Your task to perform on an android device: change the clock display to analog Image 0: 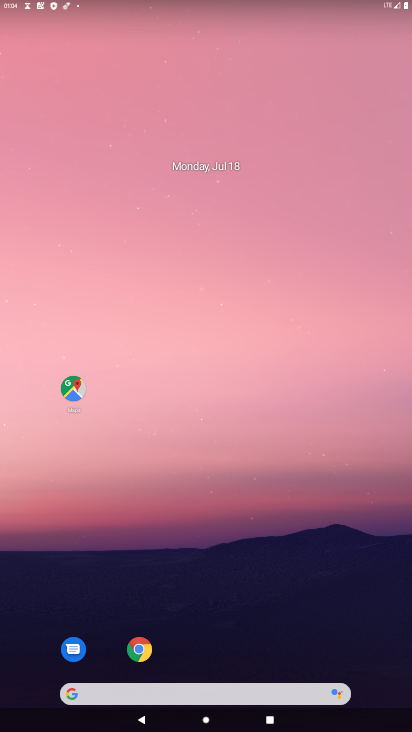
Step 0: drag from (176, 601) to (173, 24)
Your task to perform on an android device: change the clock display to analog Image 1: 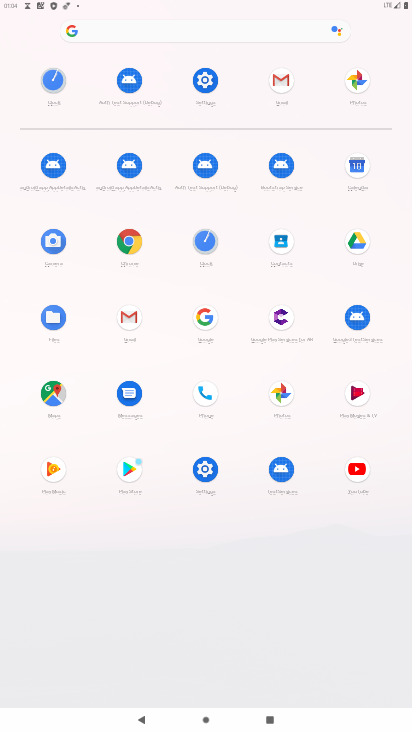
Step 1: click (203, 247)
Your task to perform on an android device: change the clock display to analog Image 2: 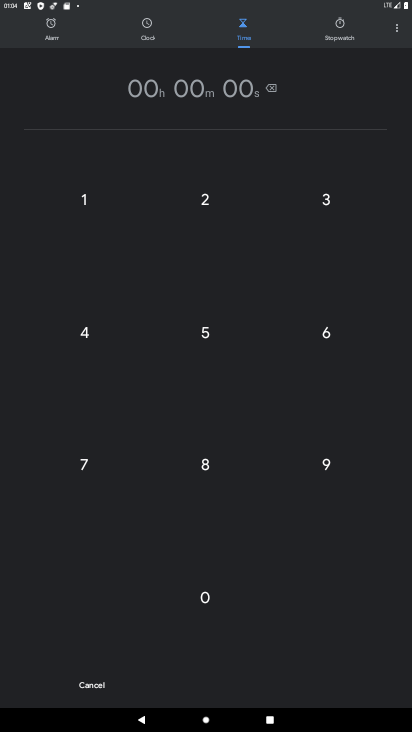
Step 2: click (398, 26)
Your task to perform on an android device: change the clock display to analog Image 3: 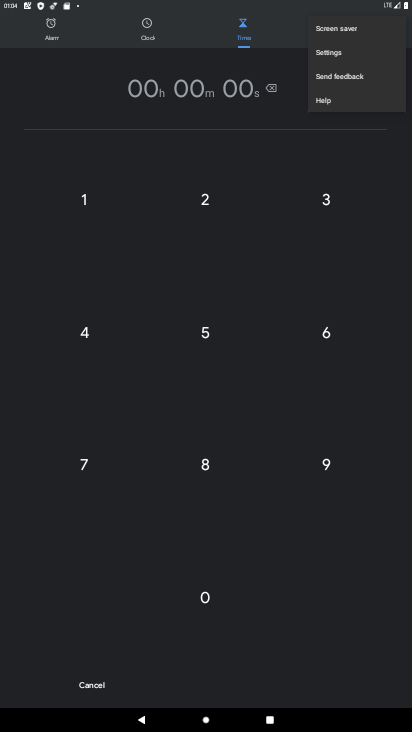
Step 3: click (336, 48)
Your task to perform on an android device: change the clock display to analog Image 4: 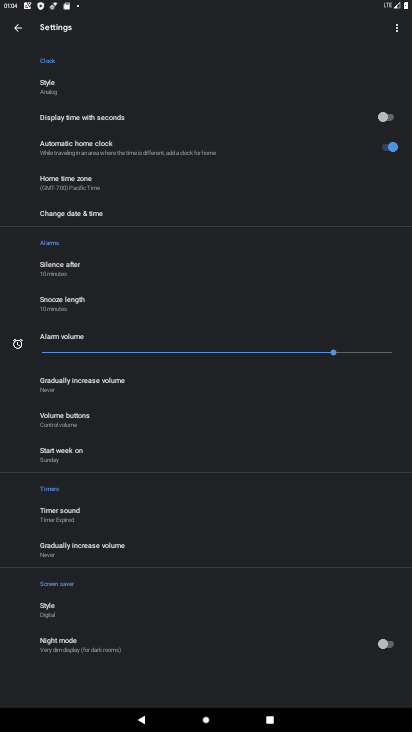
Step 4: click (61, 88)
Your task to perform on an android device: change the clock display to analog Image 5: 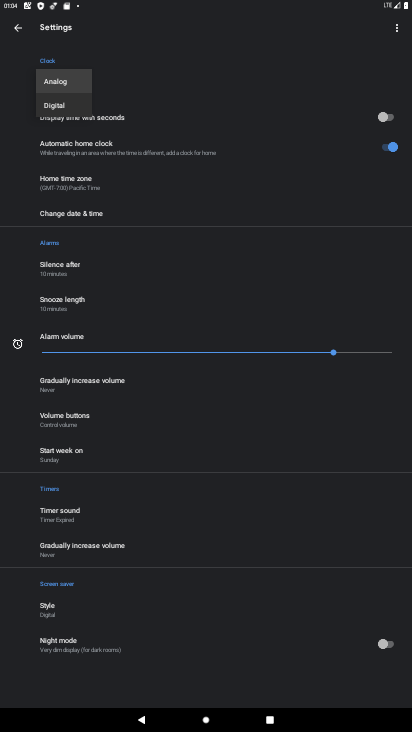
Step 5: task complete